Your task to perform on an android device: toggle location history Image 0: 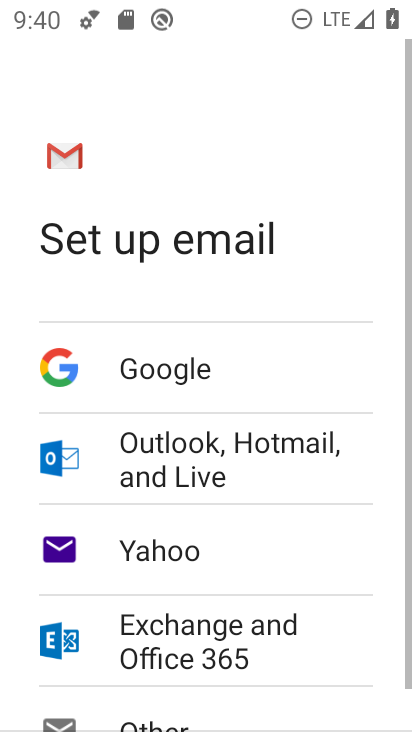
Step 0: press home button
Your task to perform on an android device: toggle location history Image 1: 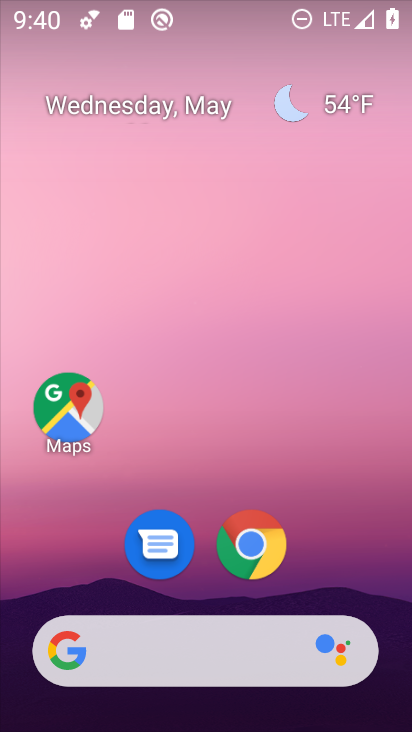
Step 1: drag from (214, 479) to (222, 274)
Your task to perform on an android device: toggle location history Image 2: 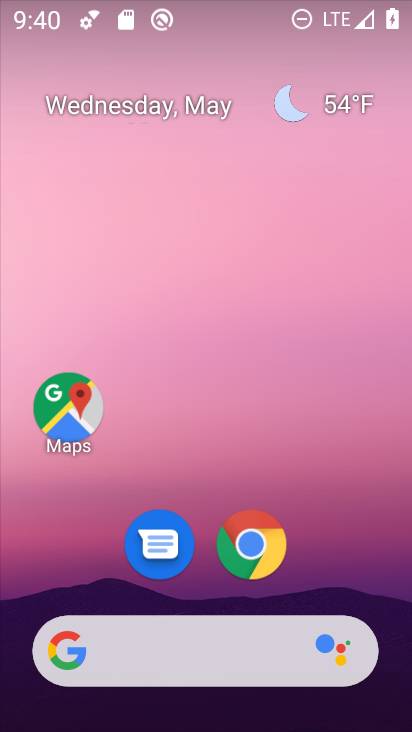
Step 2: drag from (209, 588) to (198, 127)
Your task to perform on an android device: toggle location history Image 3: 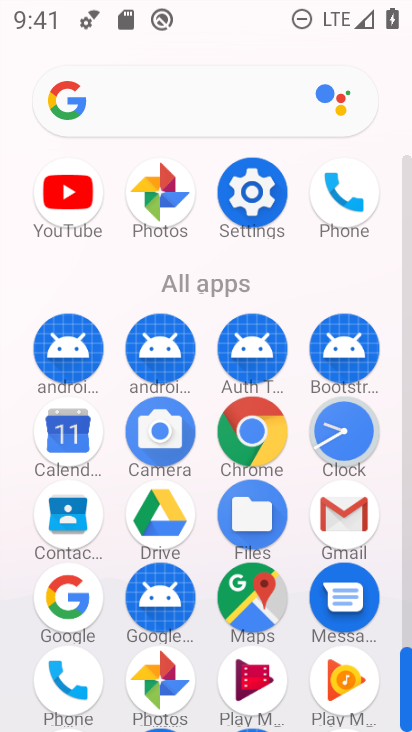
Step 3: click (256, 192)
Your task to perform on an android device: toggle location history Image 4: 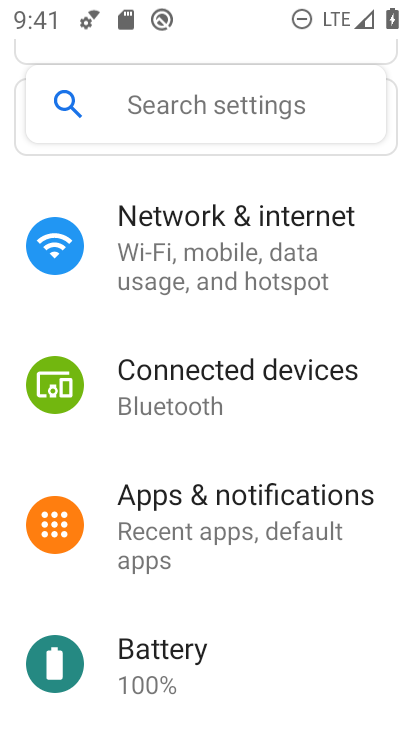
Step 4: drag from (197, 590) to (196, 458)
Your task to perform on an android device: toggle location history Image 5: 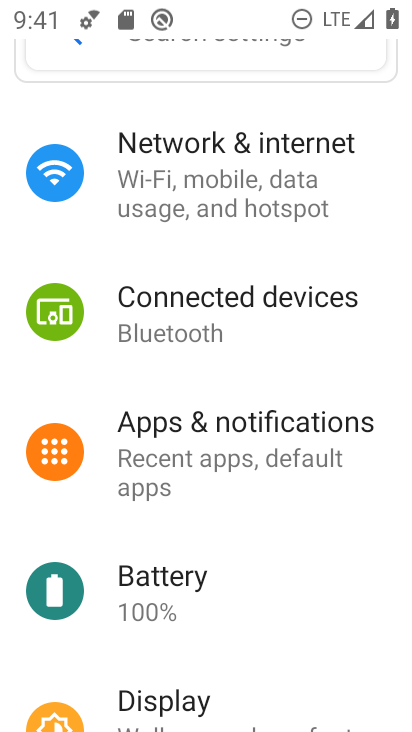
Step 5: drag from (164, 691) to (177, 578)
Your task to perform on an android device: toggle location history Image 6: 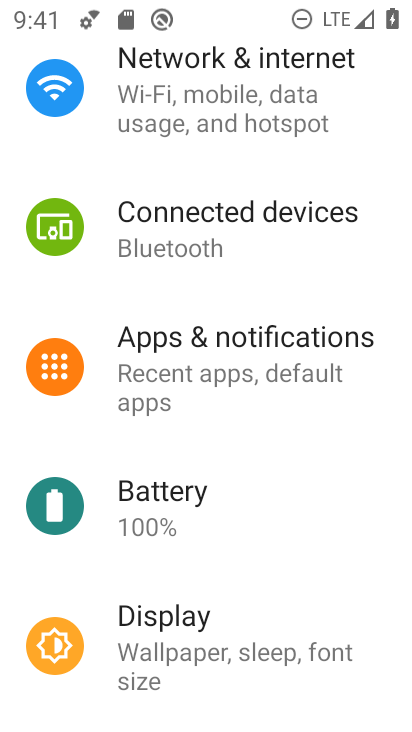
Step 6: drag from (229, 538) to (209, 378)
Your task to perform on an android device: toggle location history Image 7: 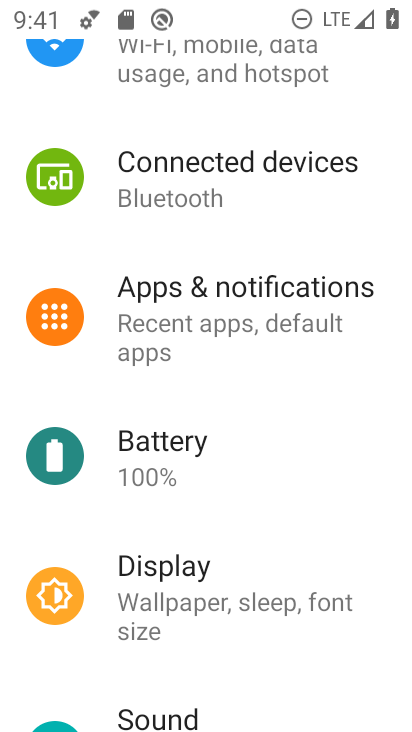
Step 7: drag from (148, 661) to (230, 226)
Your task to perform on an android device: toggle location history Image 8: 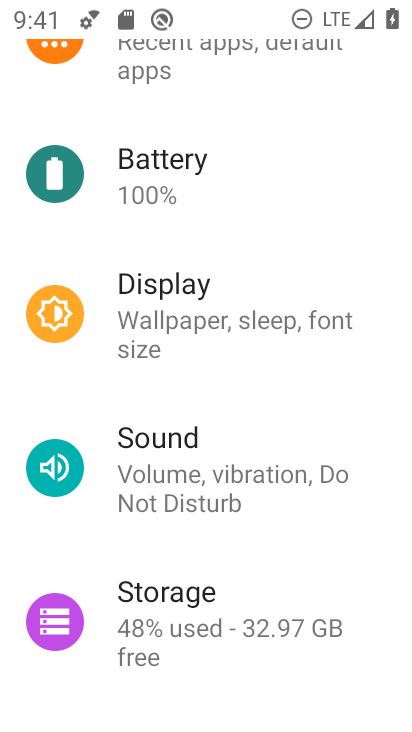
Step 8: drag from (200, 447) to (218, 226)
Your task to perform on an android device: toggle location history Image 9: 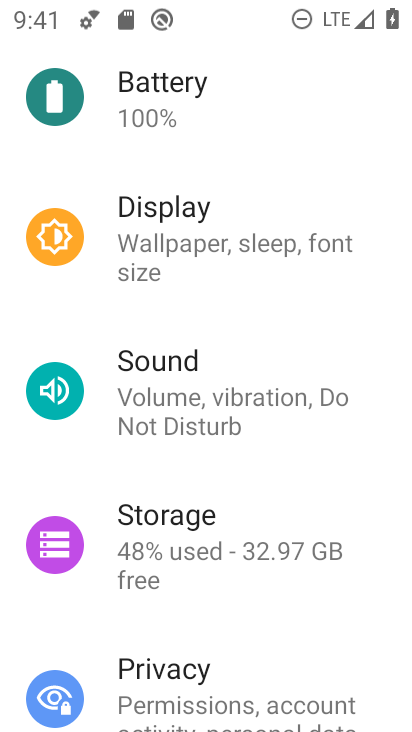
Step 9: drag from (148, 609) to (221, 246)
Your task to perform on an android device: toggle location history Image 10: 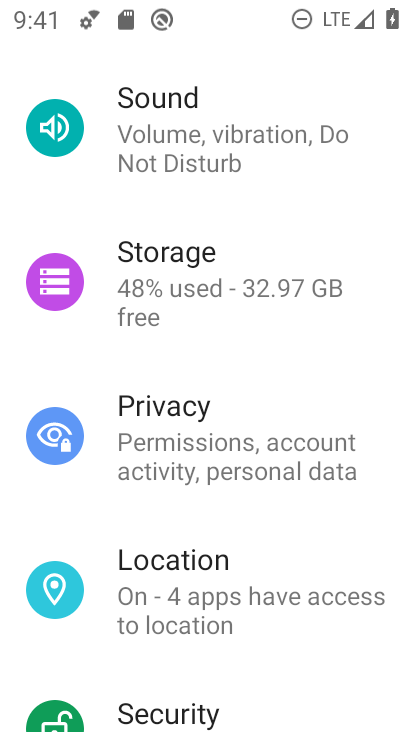
Step 10: click (204, 564)
Your task to perform on an android device: toggle location history Image 11: 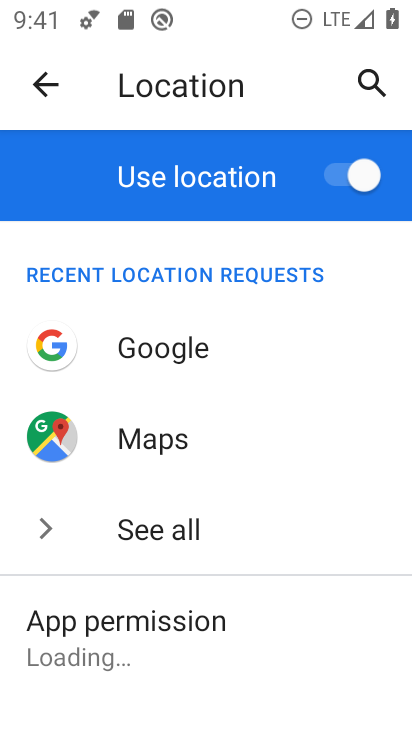
Step 11: drag from (204, 564) to (261, 33)
Your task to perform on an android device: toggle location history Image 12: 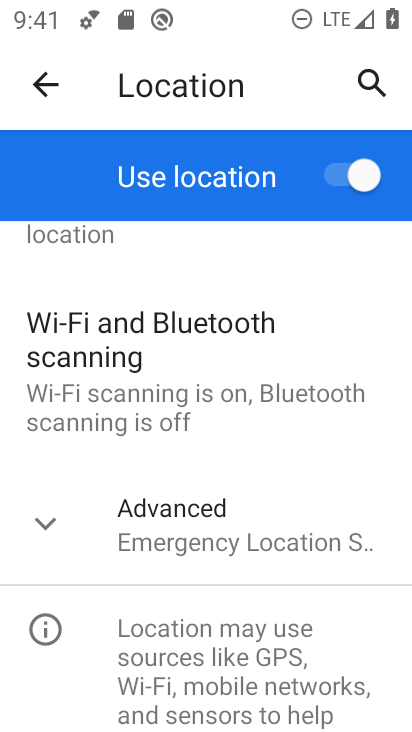
Step 12: click (219, 503)
Your task to perform on an android device: toggle location history Image 13: 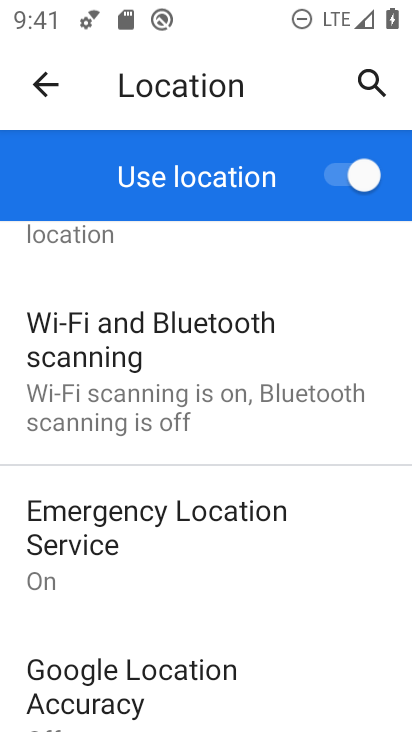
Step 13: drag from (251, 658) to (294, 11)
Your task to perform on an android device: toggle location history Image 14: 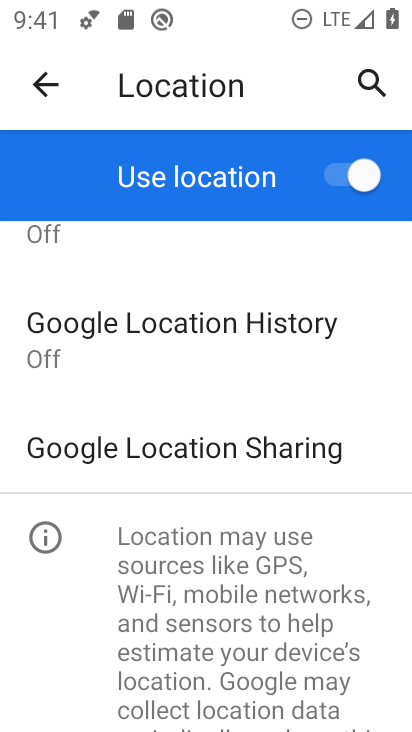
Step 14: click (192, 324)
Your task to perform on an android device: toggle location history Image 15: 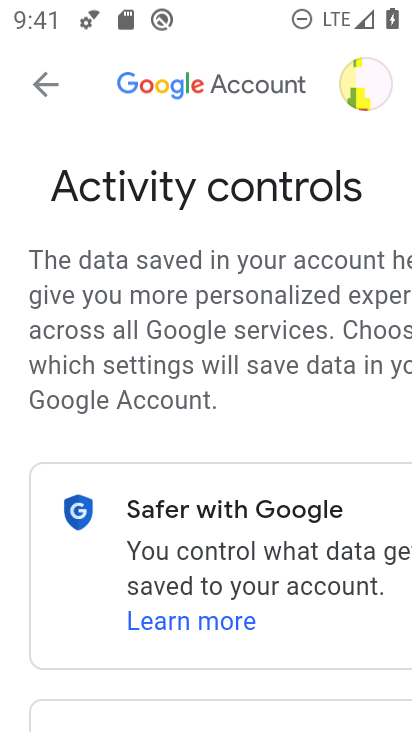
Step 15: drag from (213, 572) to (299, 134)
Your task to perform on an android device: toggle location history Image 16: 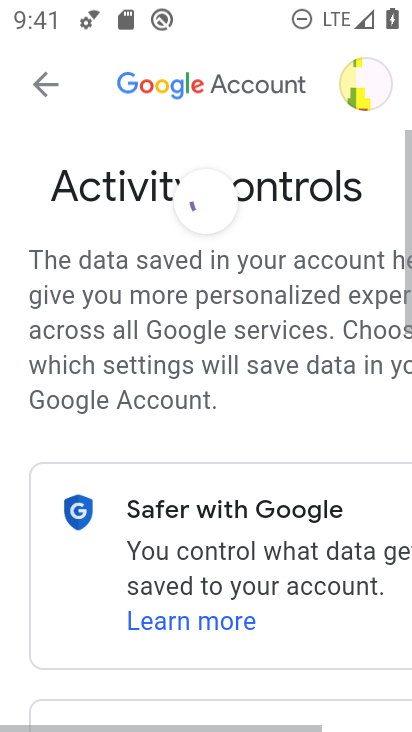
Step 16: drag from (139, 671) to (185, 381)
Your task to perform on an android device: toggle location history Image 17: 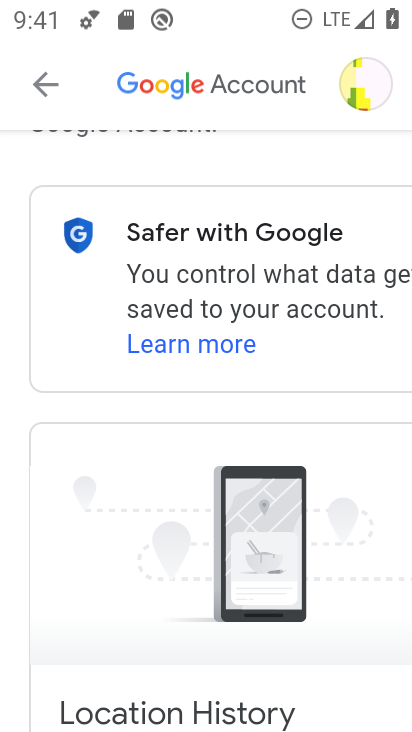
Step 17: drag from (210, 648) to (232, 295)
Your task to perform on an android device: toggle location history Image 18: 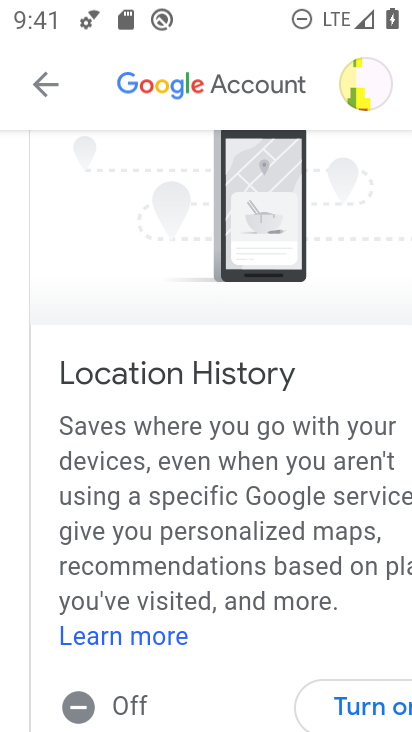
Step 18: click (364, 716)
Your task to perform on an android device: toggle location history Image 19: 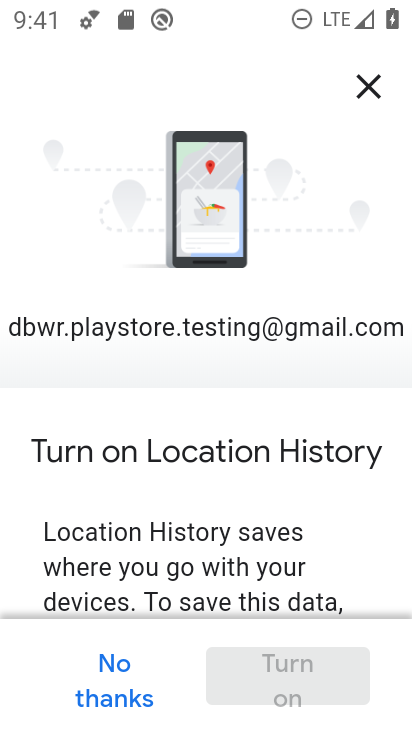
Step 19: drag from (263, 591) to (302, 86)
Your task to perform on an android device: toggle location history Image 20: 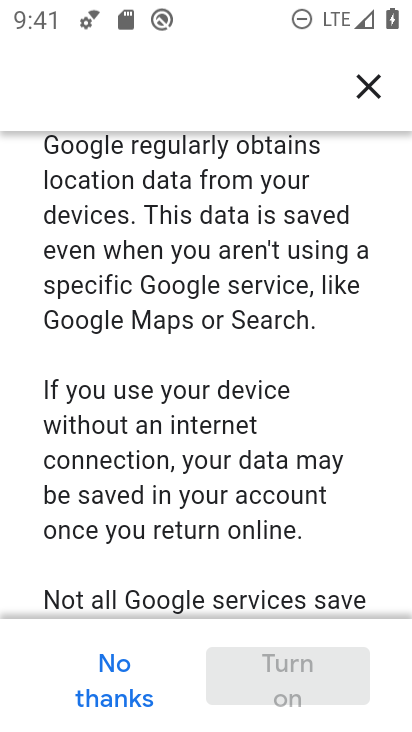
Step 20: drag from (210, 504) to (218, 161)
Your task to perform on an android device: toggle location history Image 21: 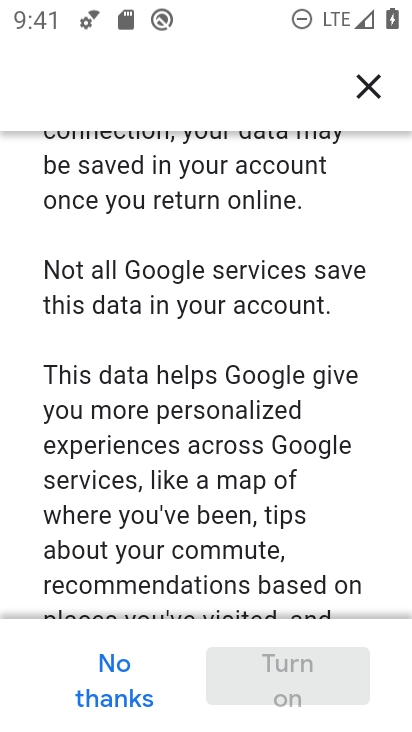
Step 21: drag from (202, 472) to (245, 96)
Your task to perform on an android device: toggle location history Image 22: 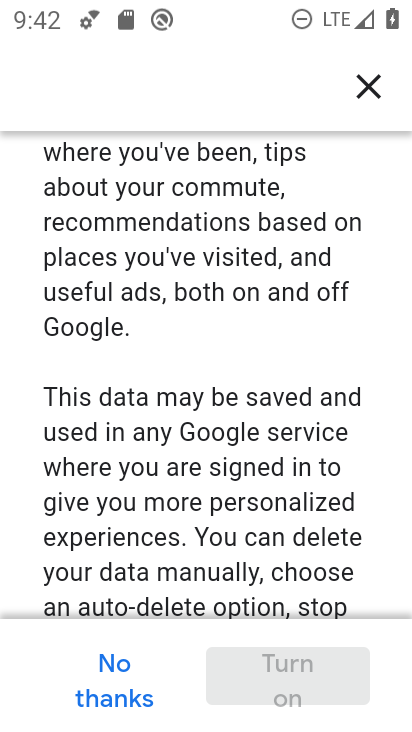
Step 22: drag from (222, 583) to (282, 111)
Your task to perform on an android device: toggle location history Image 23: 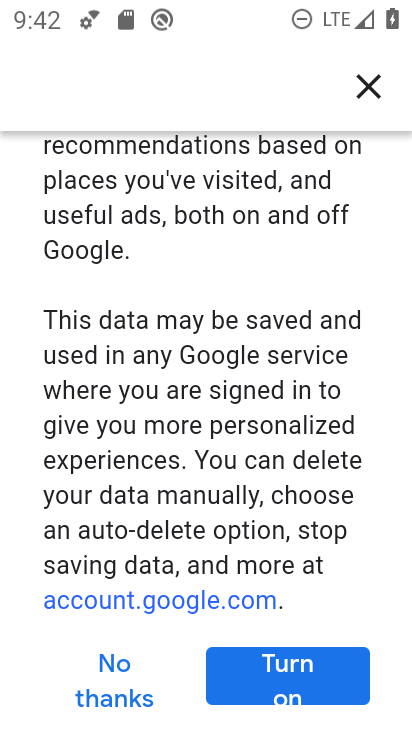
Step 23: click (258, 663)
Your task to perform on an android device: toggle location history Image 24: 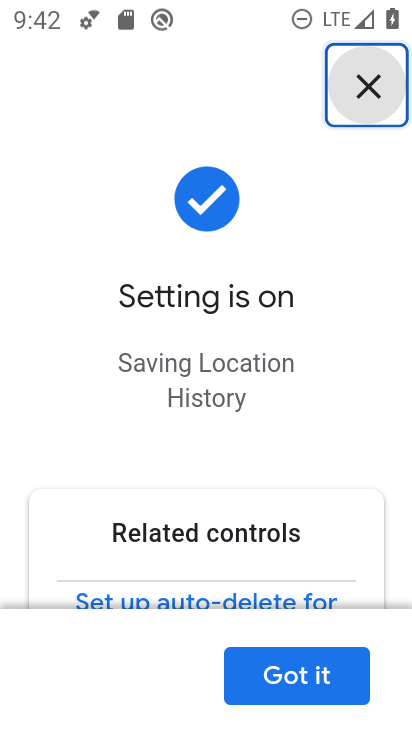
Step 24: click (258, 663)
Your task to perform on an android device: toggle location history Image 25: 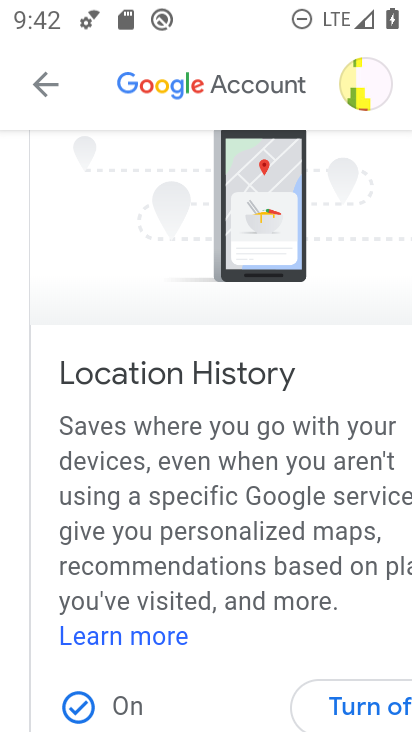
Step 25: task complete